Your task to perform on an android device: Go to location settings Image 0: 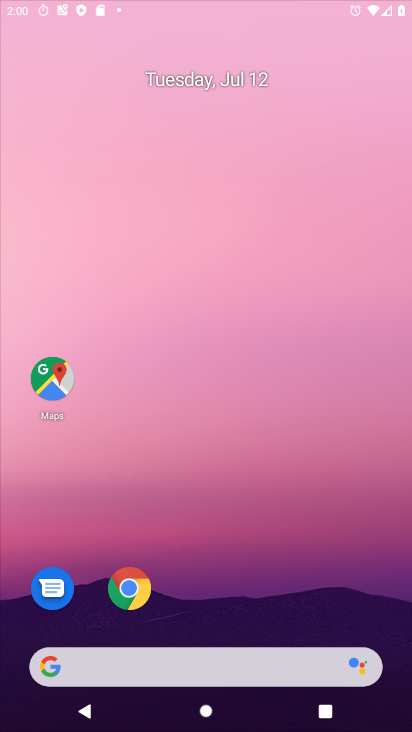
Step 0: click (265, 168)
Your task to perform on an android device: Go to location settings Image 1: 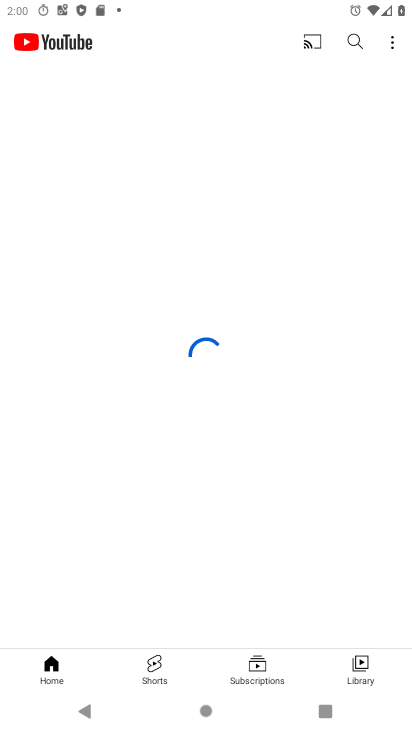
Step 1: drag from (218, 368) to (240, 220)
Your task to perform on an android device: Go to location settings Image 2: 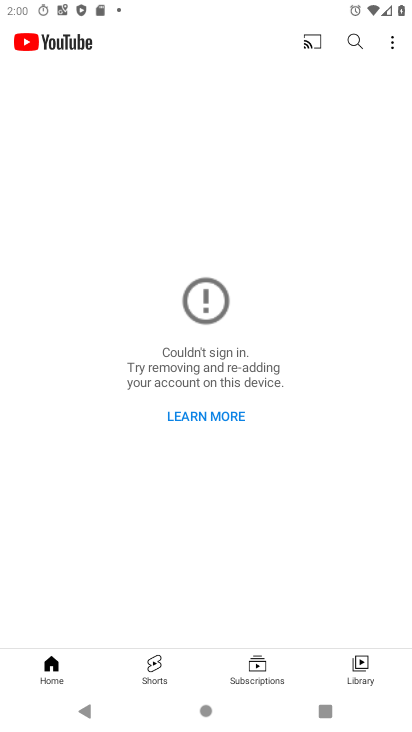
Step 2: drag from (191, 582) to (222, 269)
Your task to perform on an android device: Go to location settings Image 3: 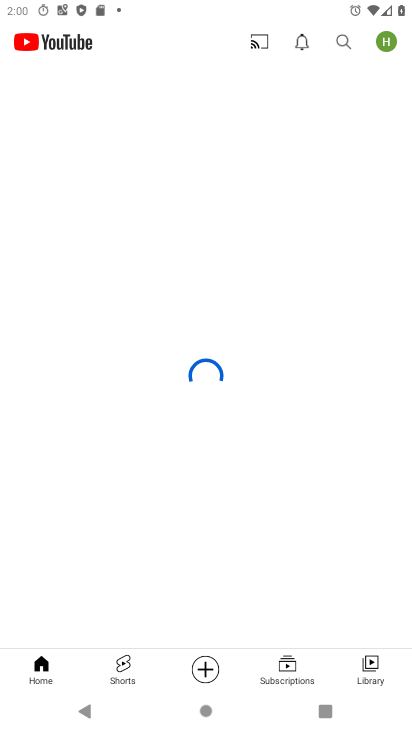
Step 3: press home button
Your task to perform on an android device: Go to location settings Image 4: 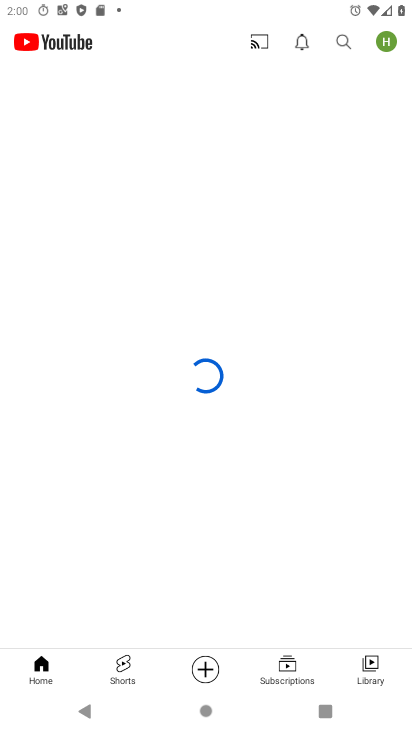
Step 4: drag from (191, 313) to (205, 169)
Your task to perform on an android device: Go to location settings Image 5: 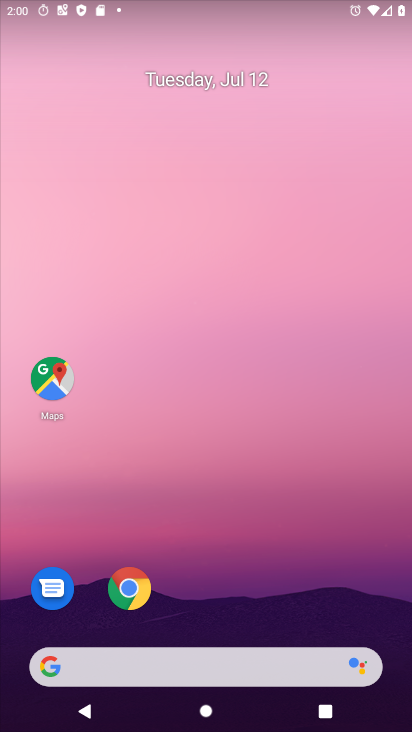
Step 5: drag from (200, 601) to (246, 172)
Your task to perform on an android device: Go to location settings Image 6: 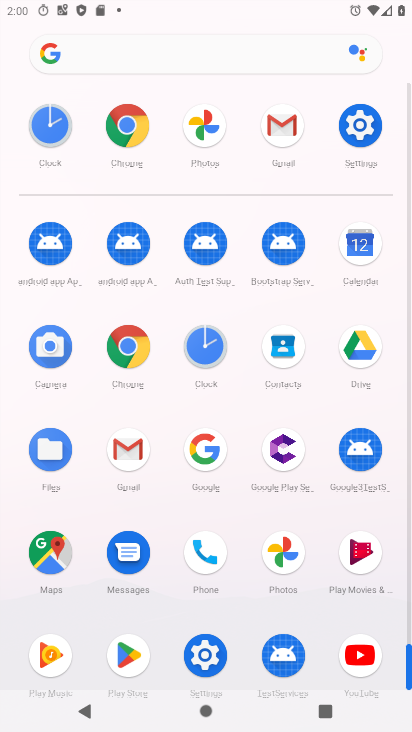
Step 6: drag from (179, 630) to (212, 224)
Your task to perform on an android device: Go to location settings Image 7: 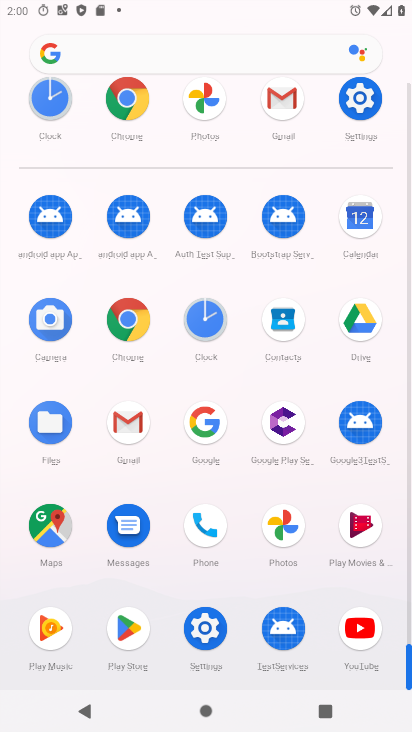
Step 7: click (205, 617)
Your task to perform on an android device: Go to location settings Image 8: 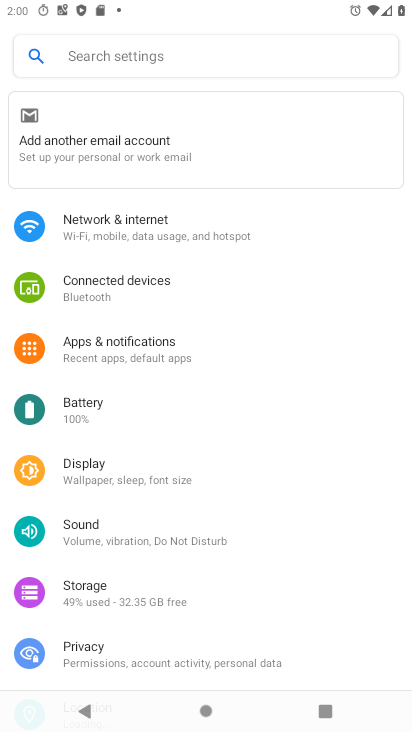
Step 8: drag from (231, 602) to (276, 197)
Your task to perform on an android device: Go to location settings Image 9: 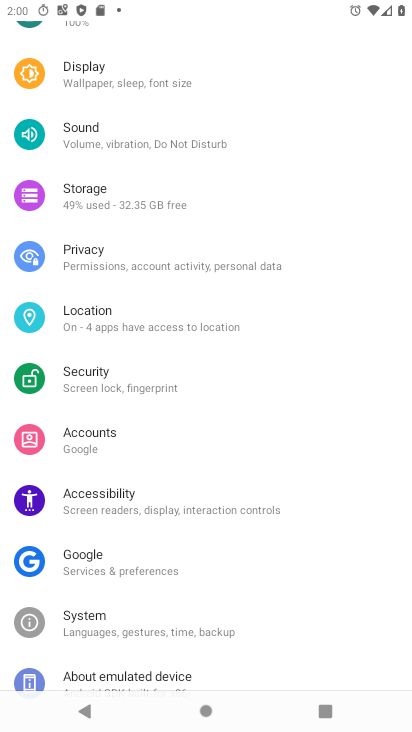
Step 9: click (117, 323)
Your task to perform on an android device: Go to location settings Image 10: 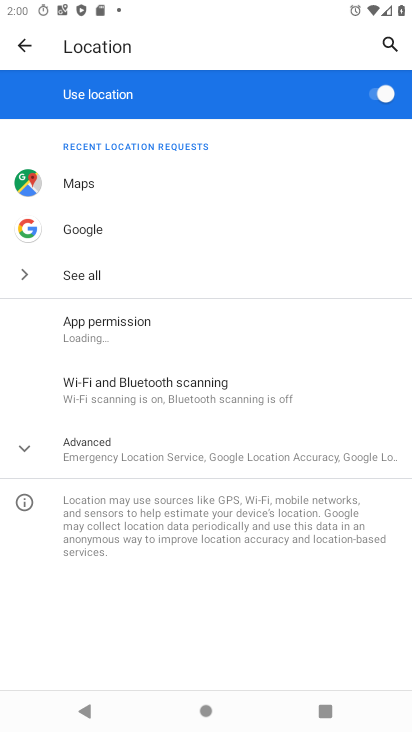
Step 10: drag from (154, 540) to (230, 209)
Your task to perform on an android device: Go to location settings Image 11: 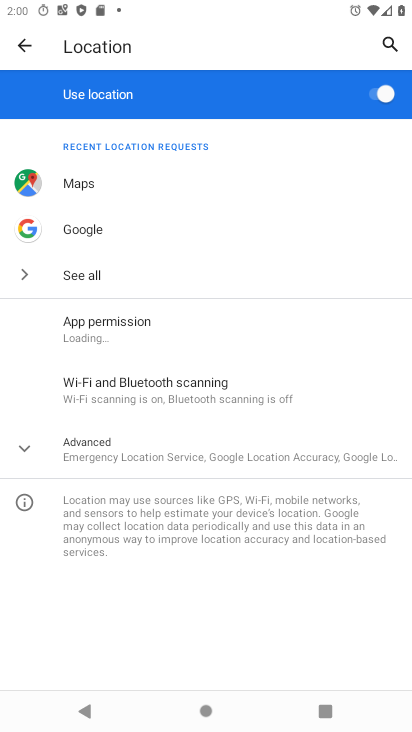
Step 11: drag from (205, 562) to (220, 257)
Your task to perform on an android device: Go to location settings Image 12: 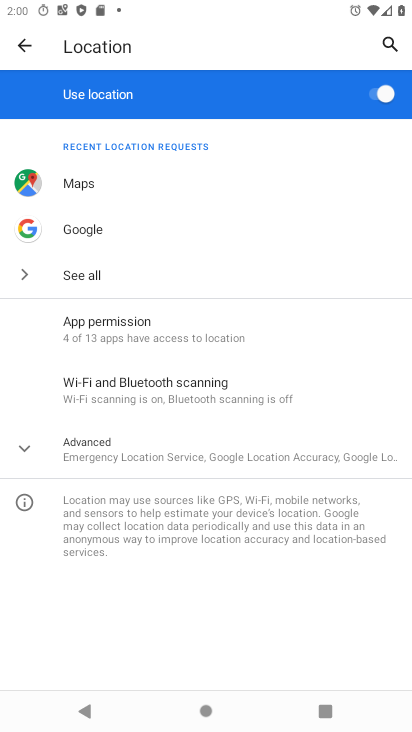
Step 12: click (120, 444)
Your task to perform on an android device: Go to location settings Image 13: 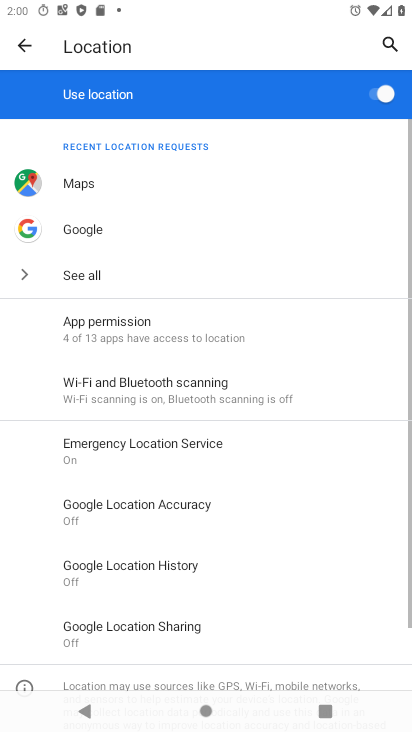
Step 13: drag from (219, 496) to (305, 105)
Your task to perform on an android device: Go to location settings Image 14: 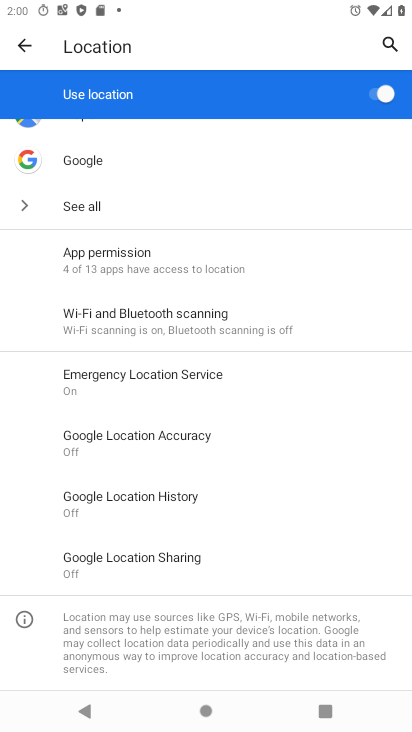
Step 14: click (168, 498)
Your task to perform on an android device: Go to location settings Image 15: 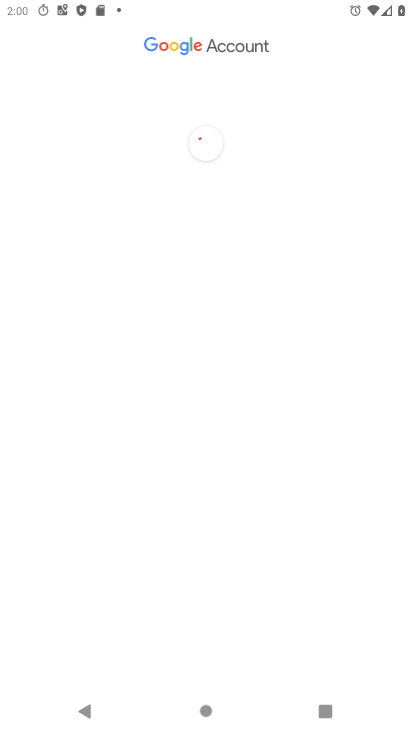
Step 15: drag from (243, 608) to (257, 225)
Your task to perform on an android device: Go to location settings Image 16: 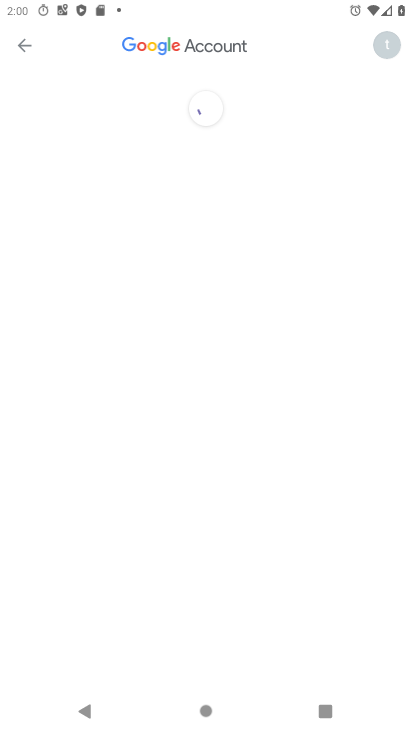
Step 16: drag from (151, 582) to (353, 215)
Your task to perform on an android device: Go to location settings Image 17: 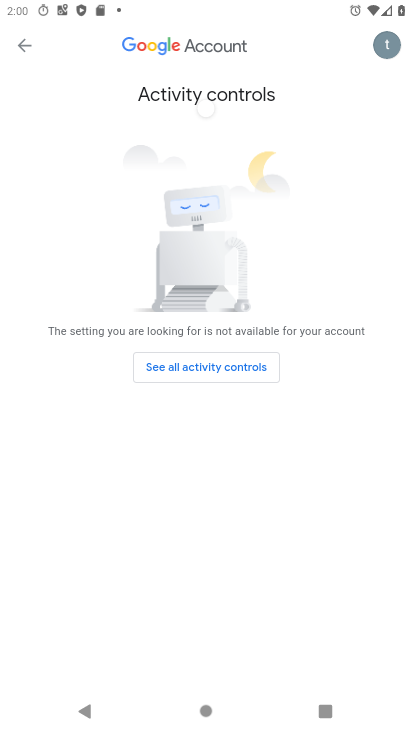
Step 17: press home button
Your task to perform on an android device: Go to location settings Image 18: 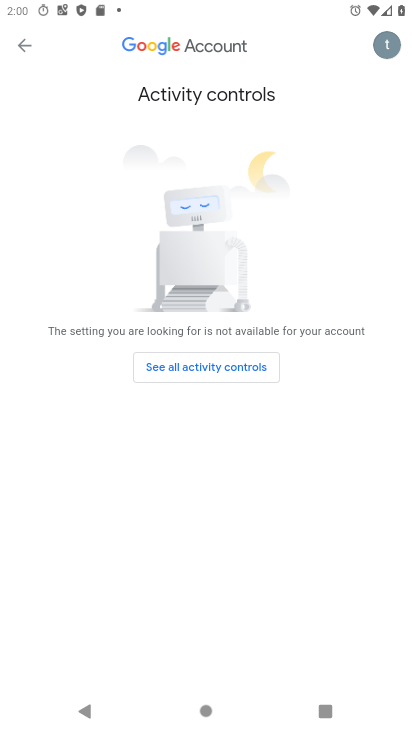
Step 18: click (269, 207)
Your task to perform on an android device: Go to location settings Image 19: 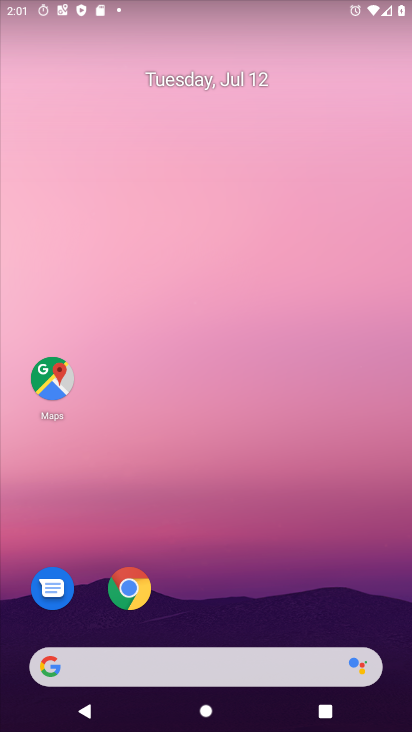
Step 19: drag from (205, 608) to (256, 160)
Your task to perform on an android device: Go to location settings Image 20: 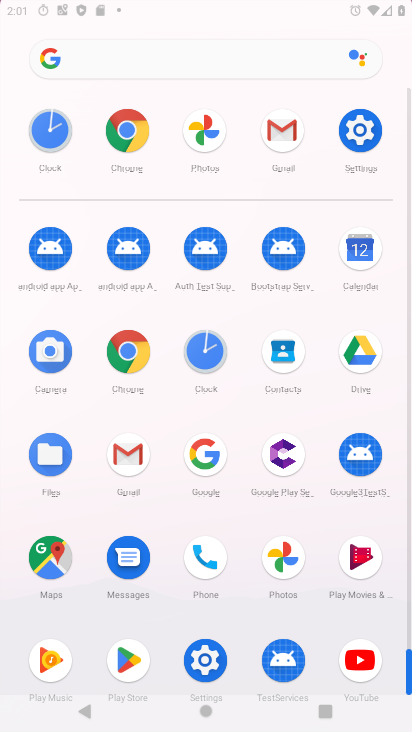
Step 20: click (361, 131)
Your task to perform on an android device: Go to location settings Image 21: 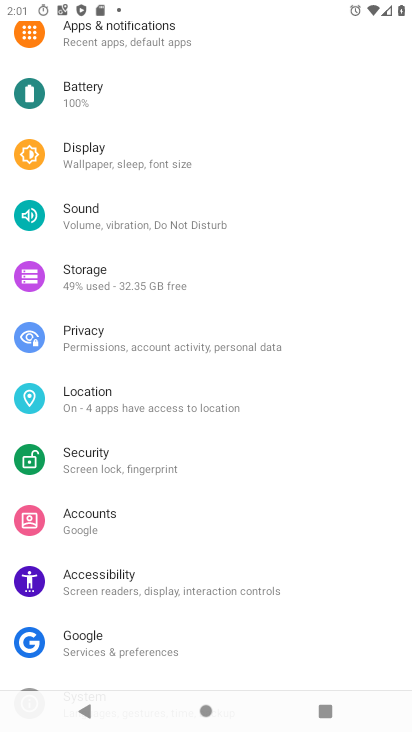
Step 21: click (86, 408)
Your task to perform on an android device: Go to location settings Image 22: 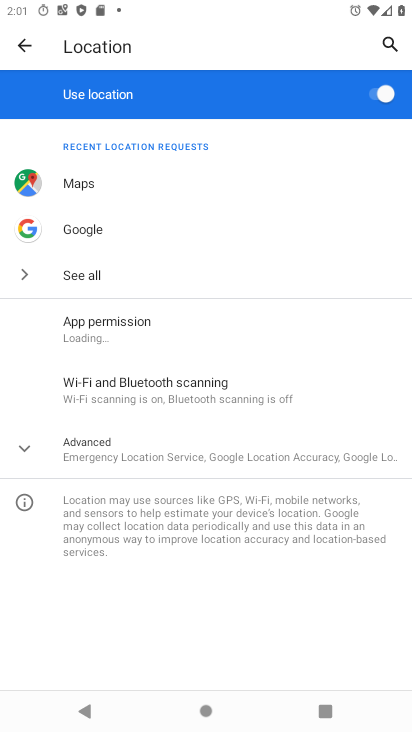
Step 22: task complete